Your task to perform on an android device: Open calendar and show me the third week of next month Image 0: 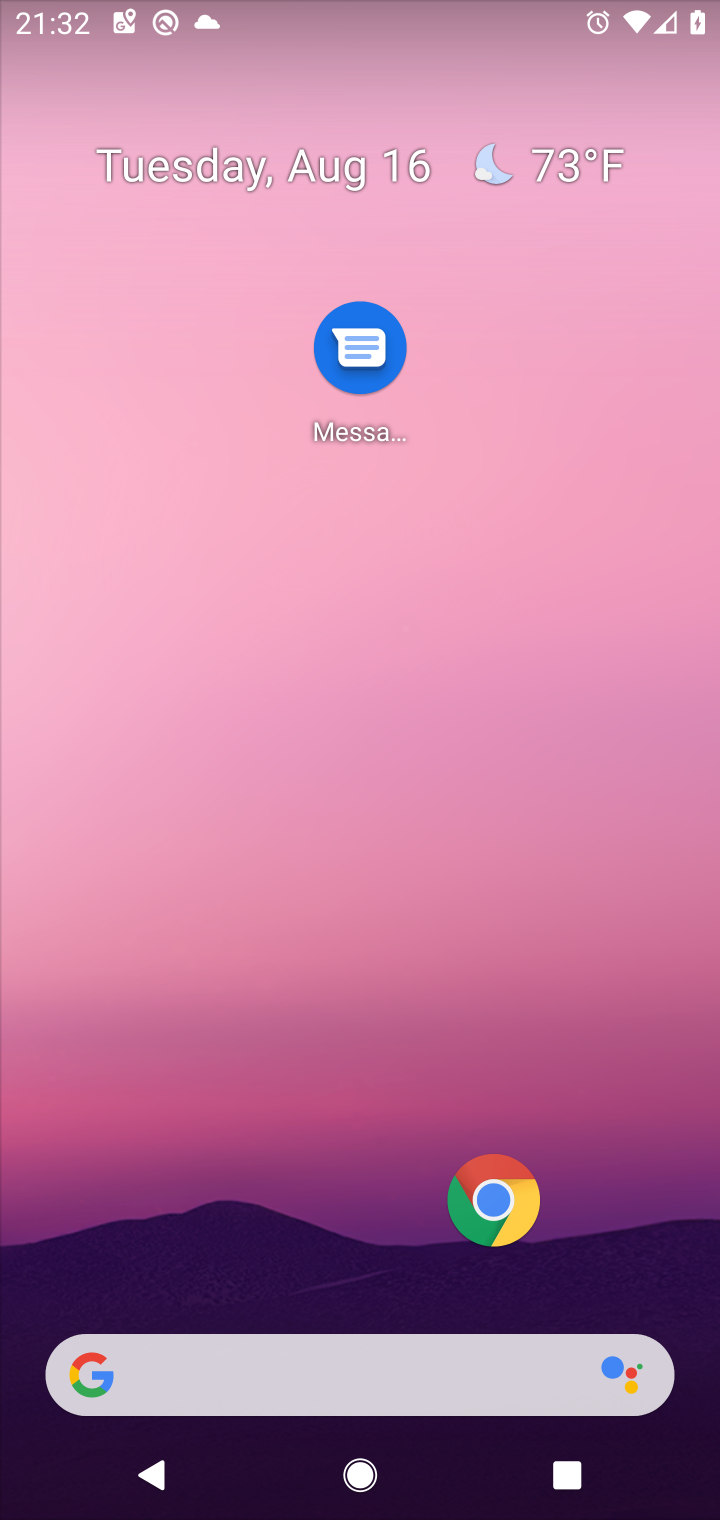
Step 0: drag from (95, 1470) to (111, 23)
Your task to perform on an android device: Open calendar and show me the third week of next month Image 1: 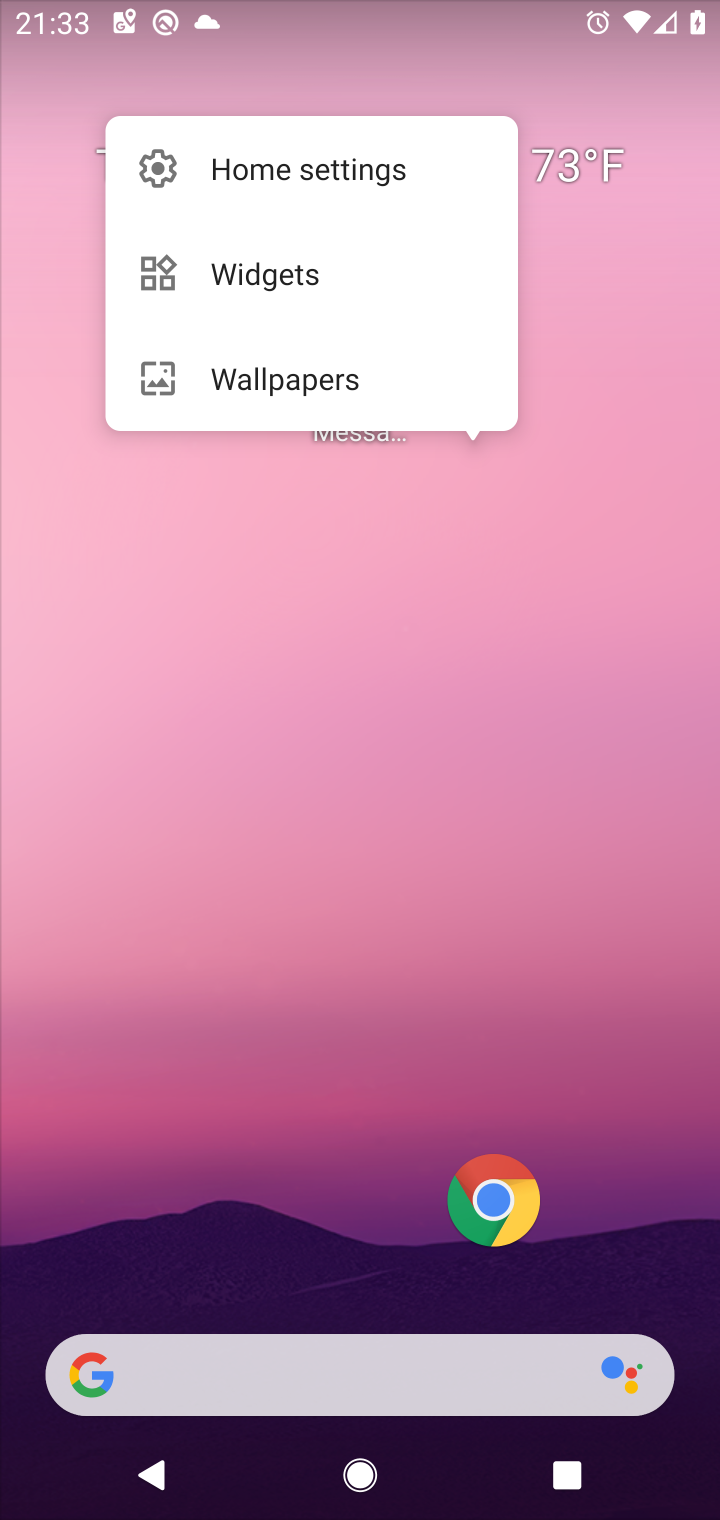
Step 1: drag from (66, 1462) to (345, 659)
Your task to perform on an android device: Open calendar and show me the third week of next month Image 2: 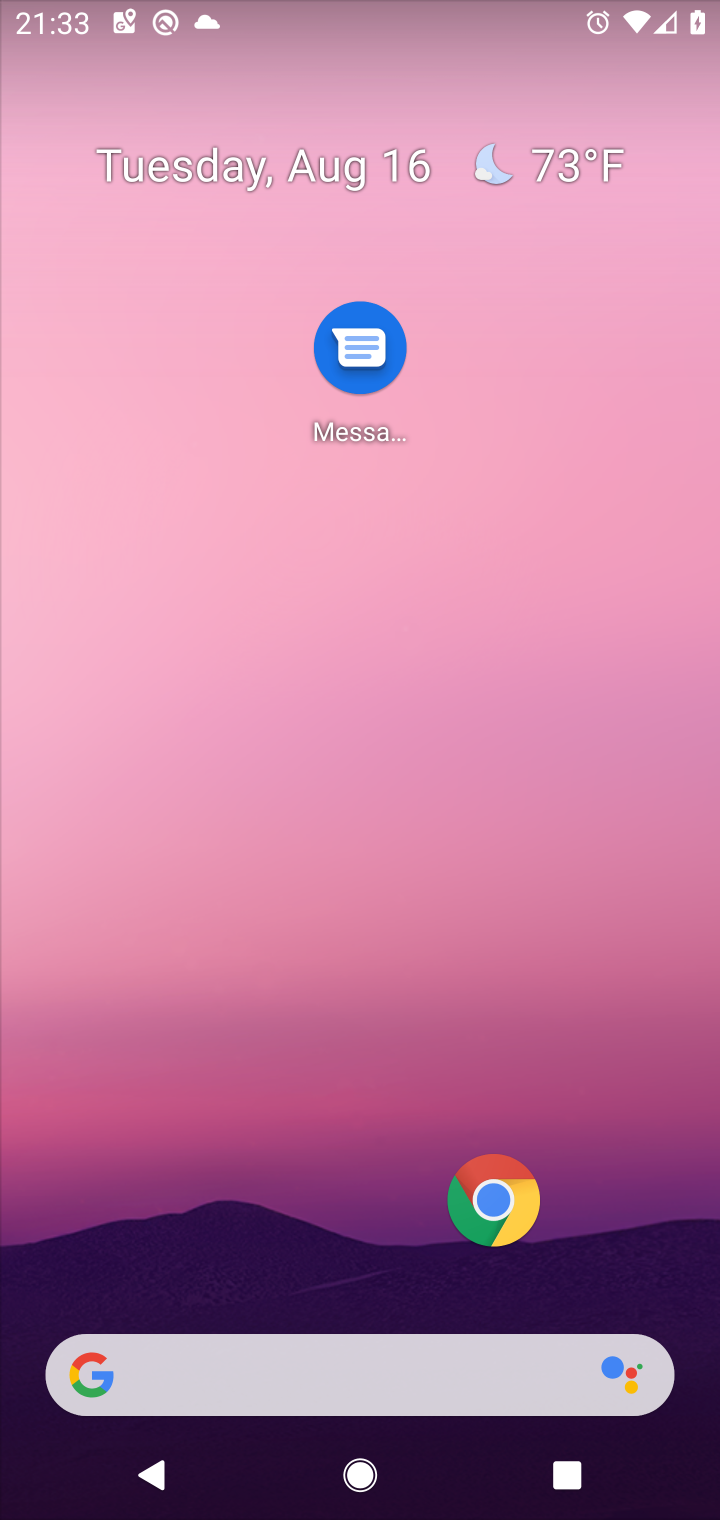
Step 2: drag from (123, 1257) to (299, 483)
Your task to perform on an android device: Open calendar and show me the third week of next month Image 3: 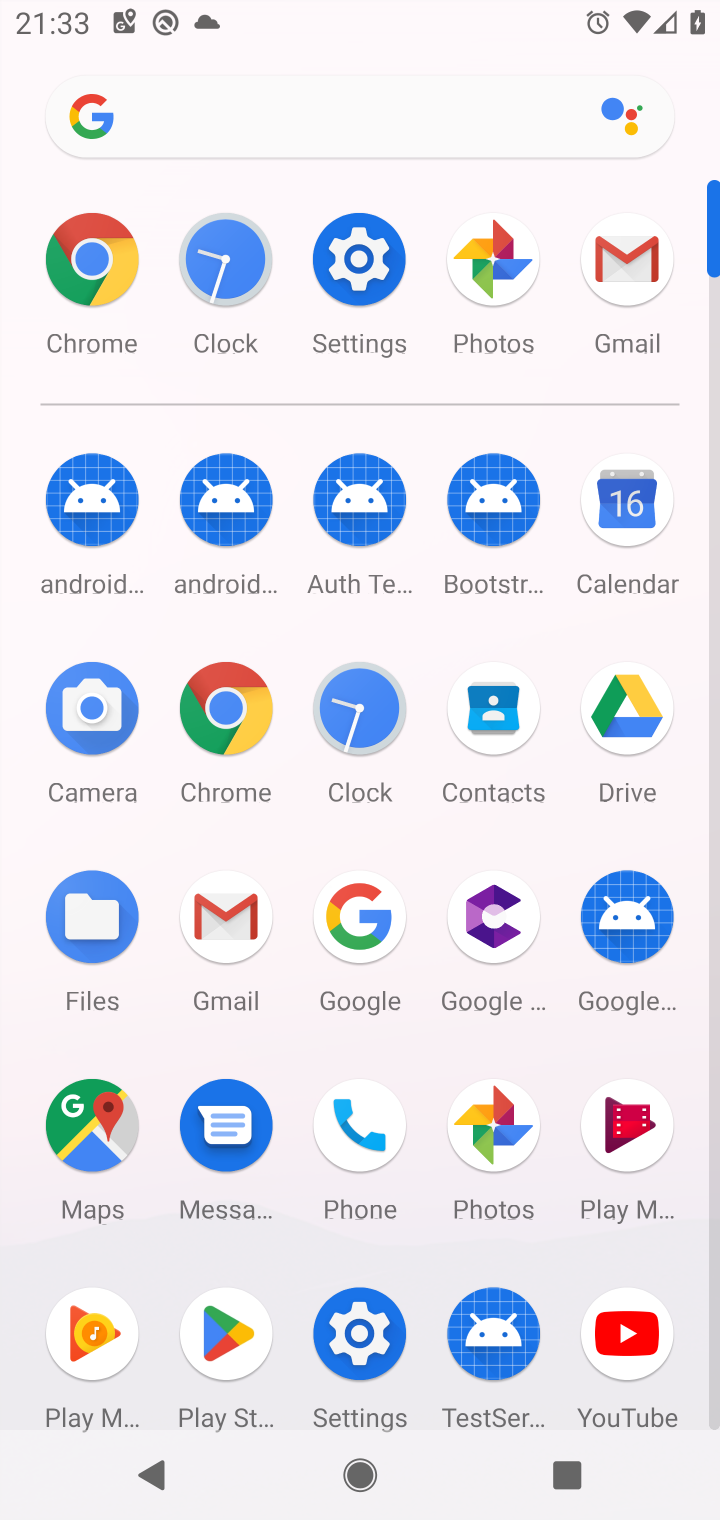
Step 3: click (628, 520)
Your task to perform on an android device: Open calendar and show me the third week of next month Image 4: 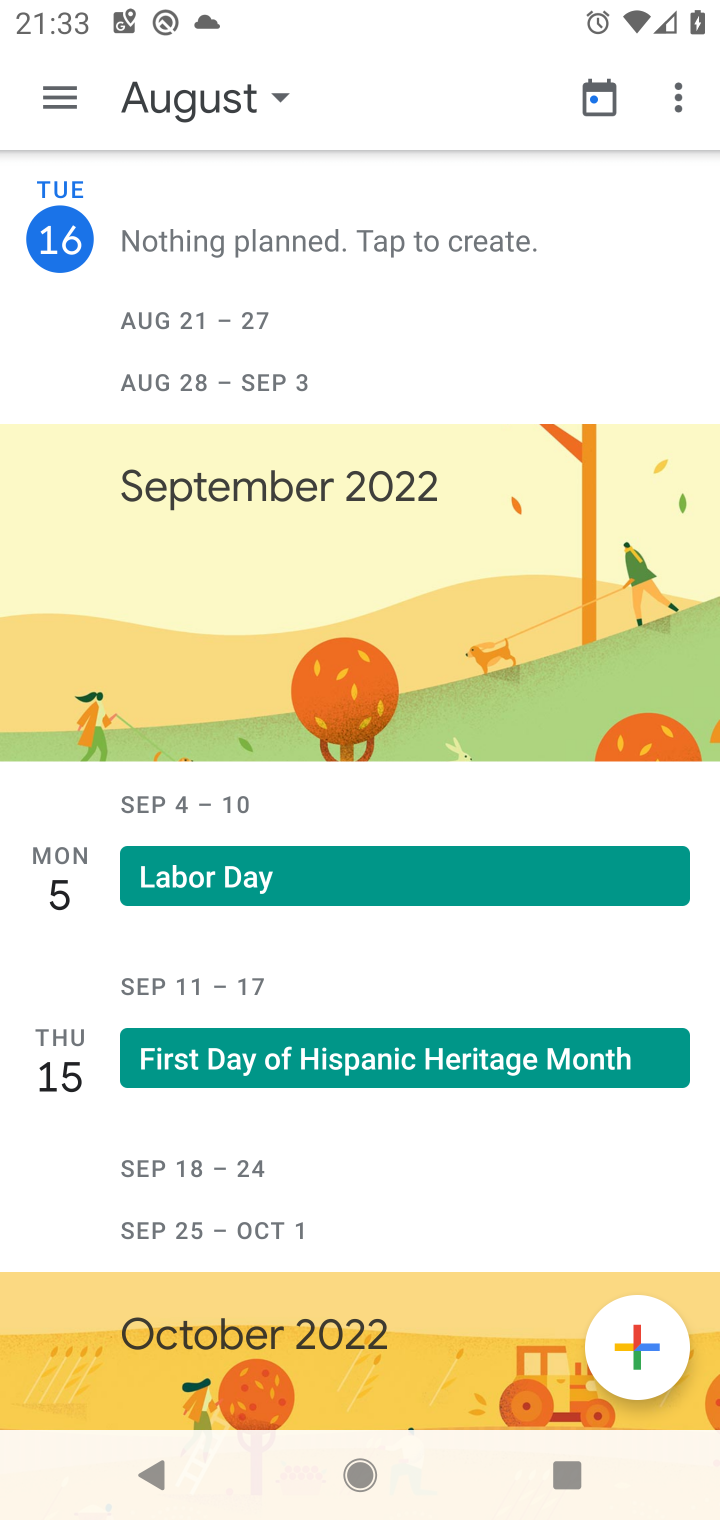
Step 4: click (202, 116)
Your task to perform on an android device: Open calendar and show me the third week of next month Image 5: 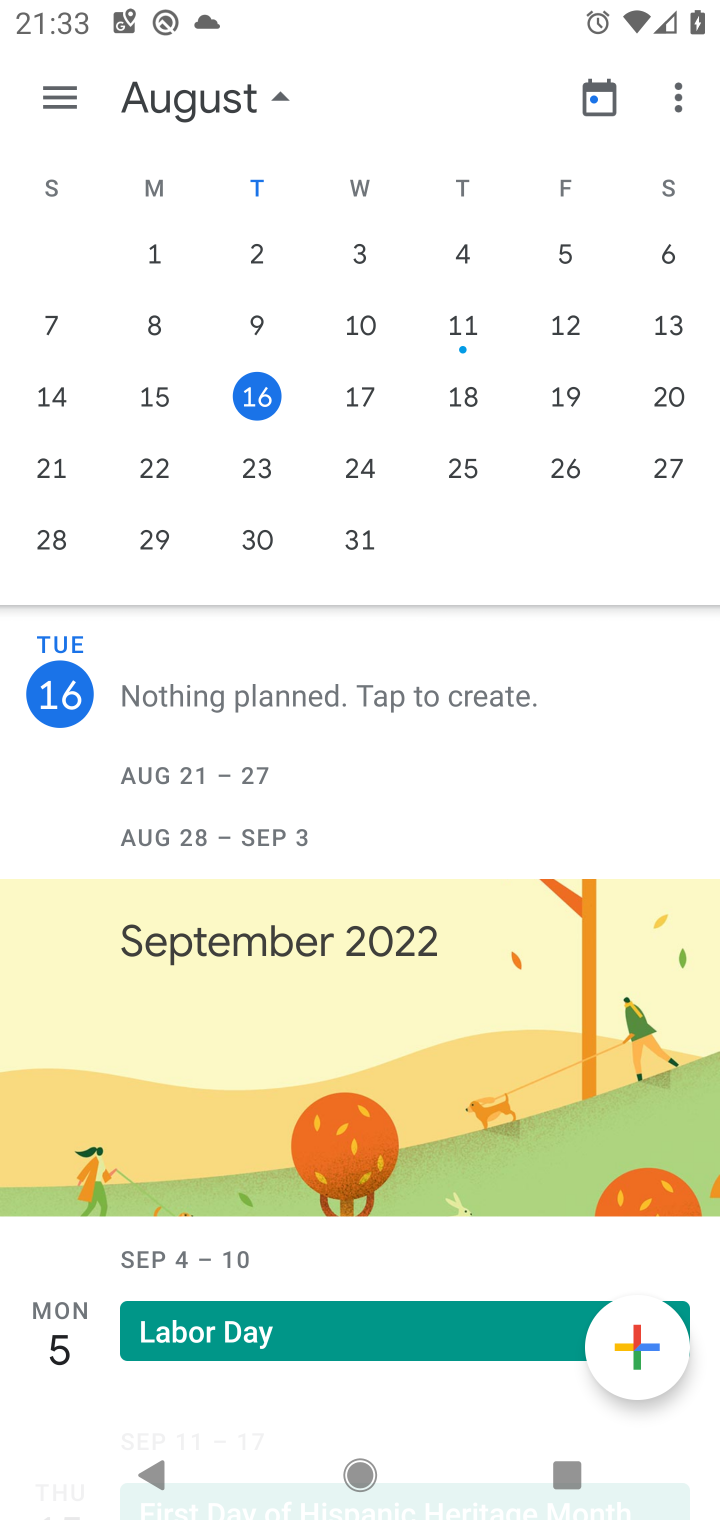
Step 5: drag from (675, 294) to (63, 475)
Your task to perform on an android device: Open calendar and show me the third week of next month Image 6: 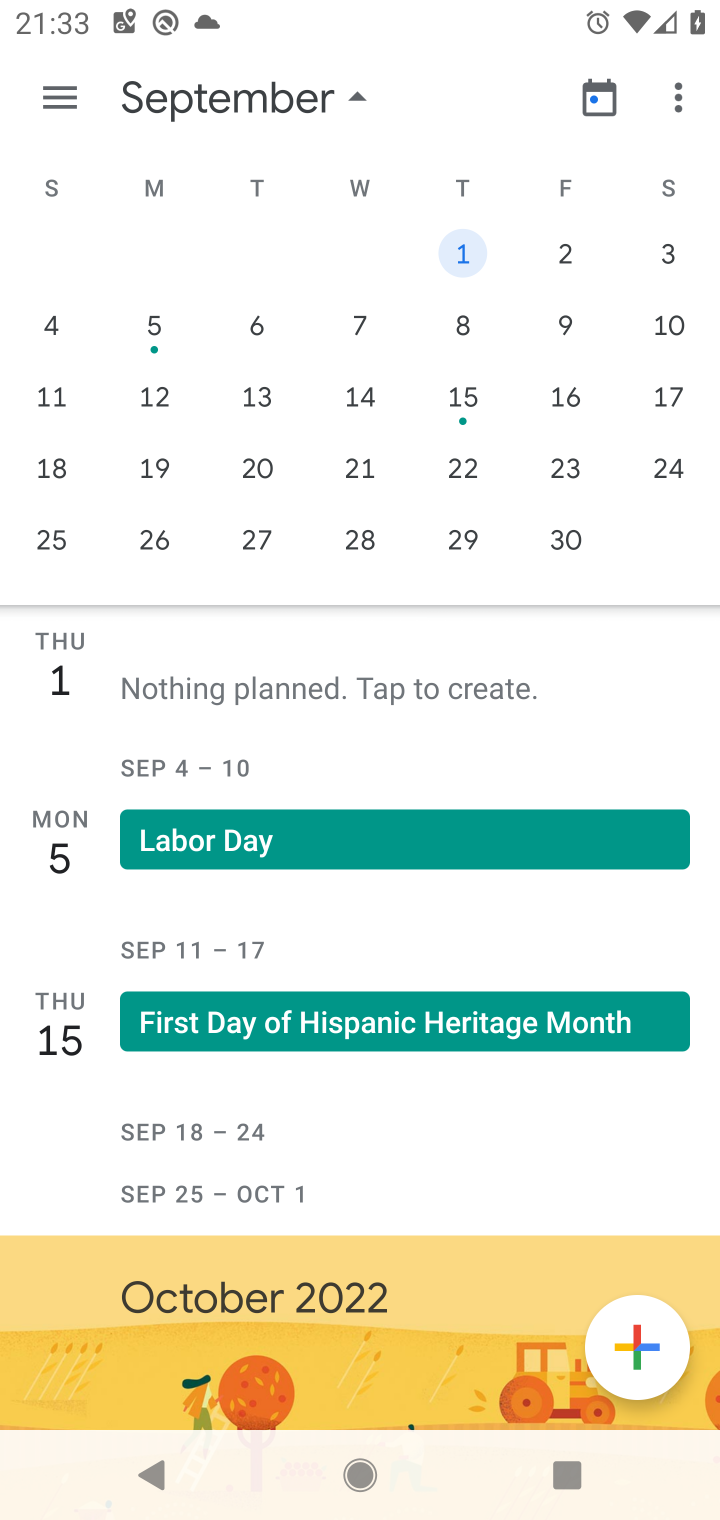
Step 6: click (157, 404)
Your task to perform on an android device: Open calendar and show me the third week of next month Image 7: 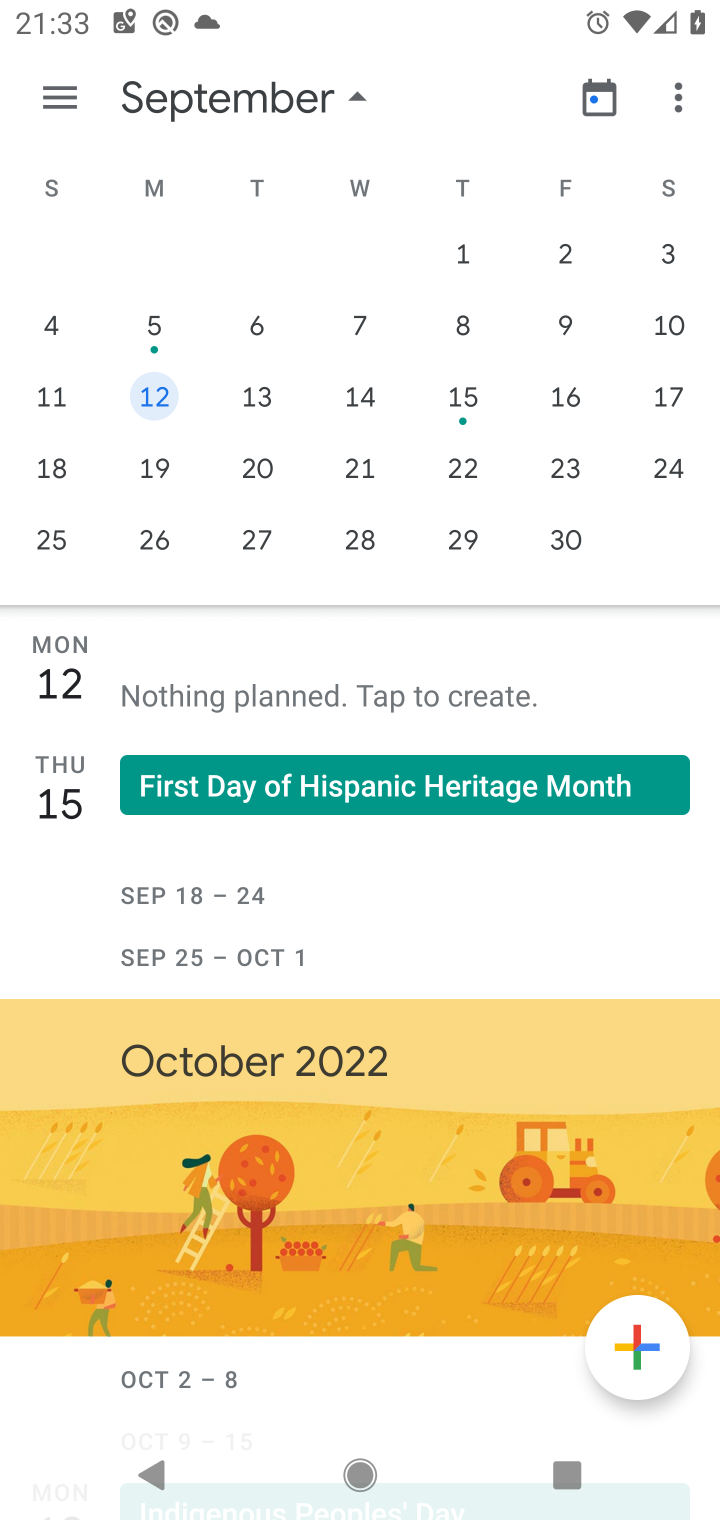
Step 7: task complete